Your task to perform on an android device: open wifi settings Image 0: 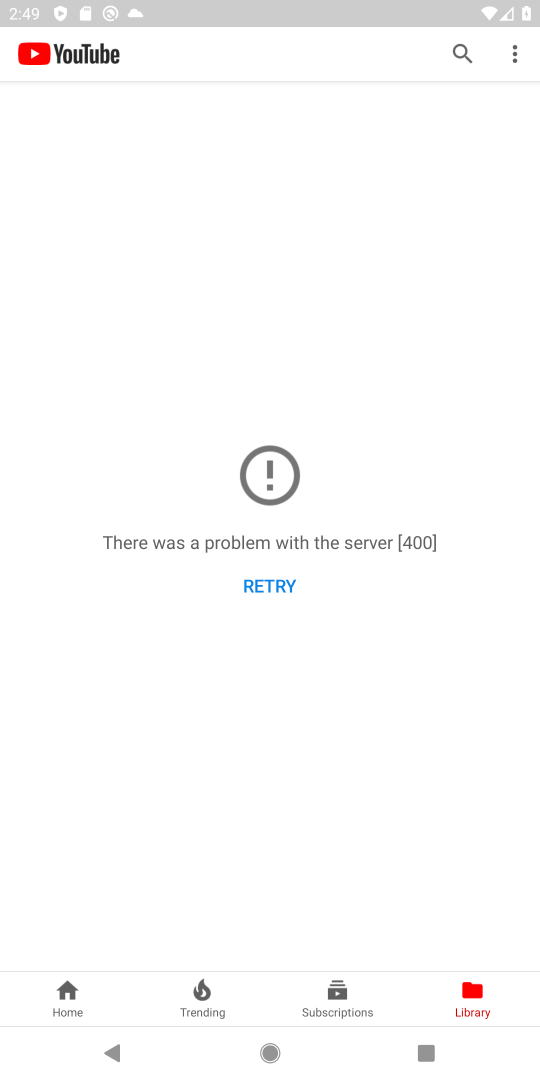
Step 0: press home button
Your task to perform on an android device: open wifi settings Image 1: 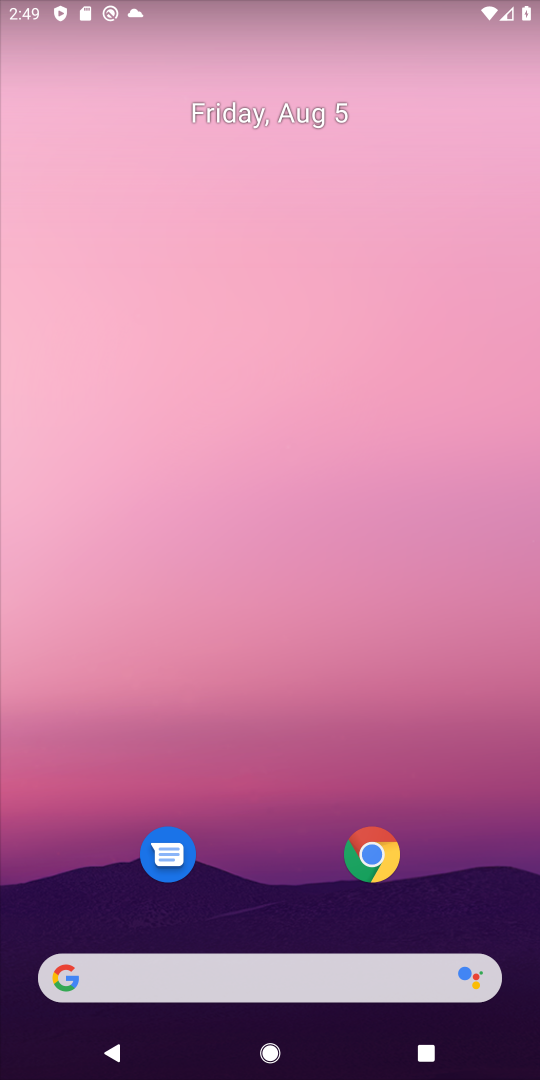
Step 1: drag from (37, 1047) to (358, 308)
Your task to perform on an android device: open wifi settings Image 2: 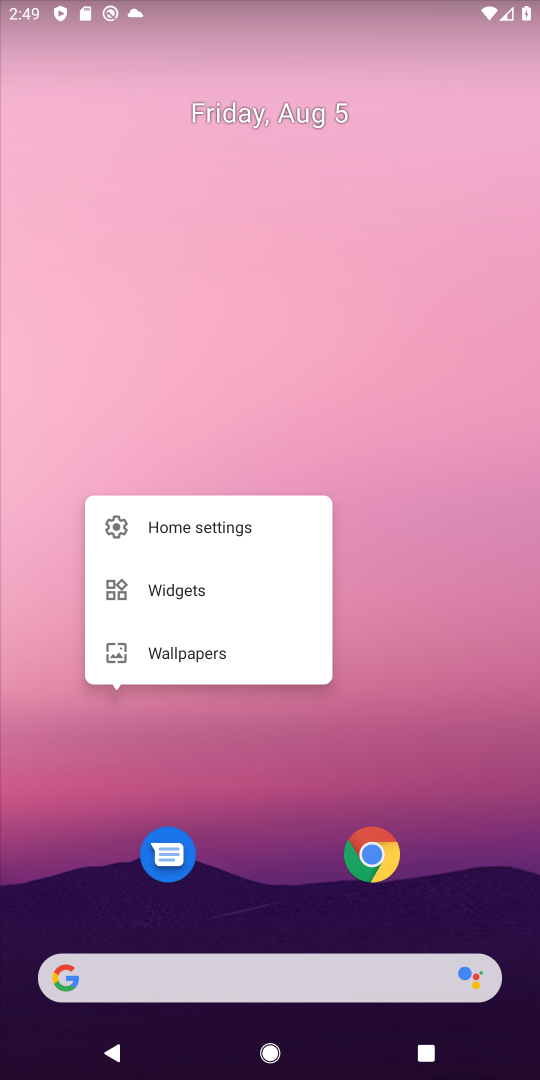
Step 2: click (73, 1031)
Your task to perform on an android device: open wifi settings Image 3: 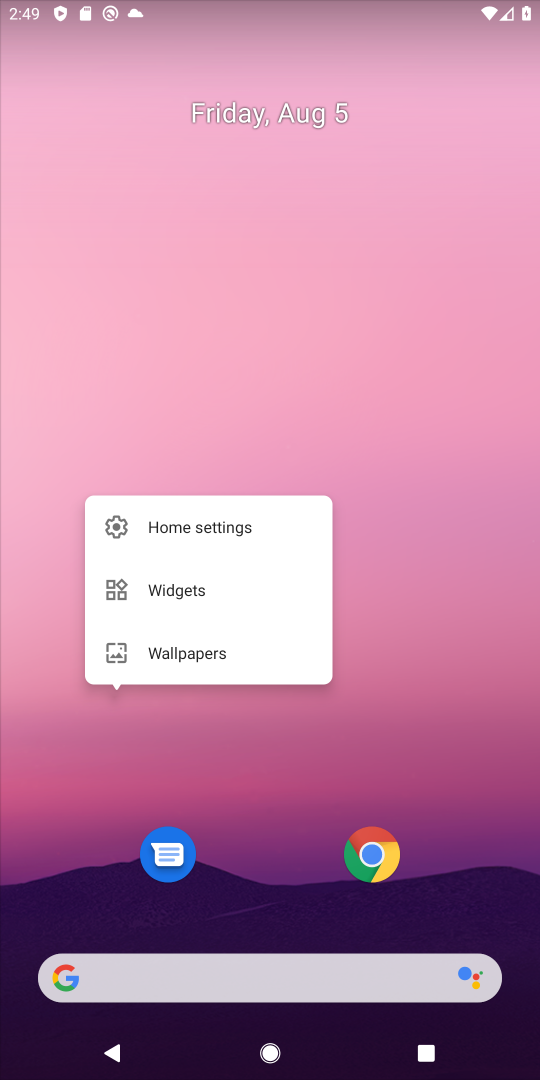
Step 3: drag from (337, 693) to (496, 362)
Your task to perform on an android device: open wifi settings Image 4: 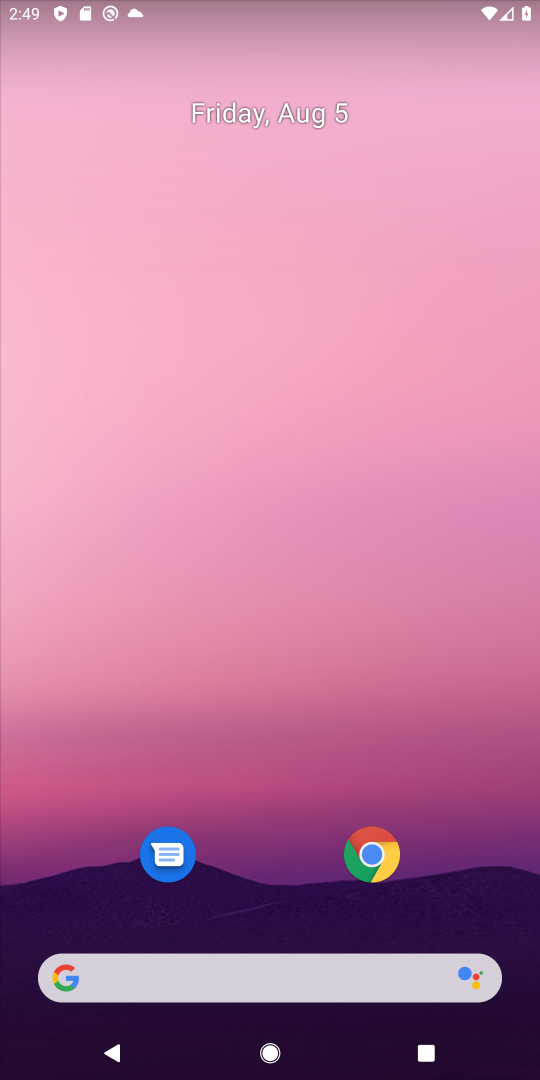
Step 4: drag from (67, 1023) to (315, 430)
Your task to perform on an android device: open wifi settings Image 5: 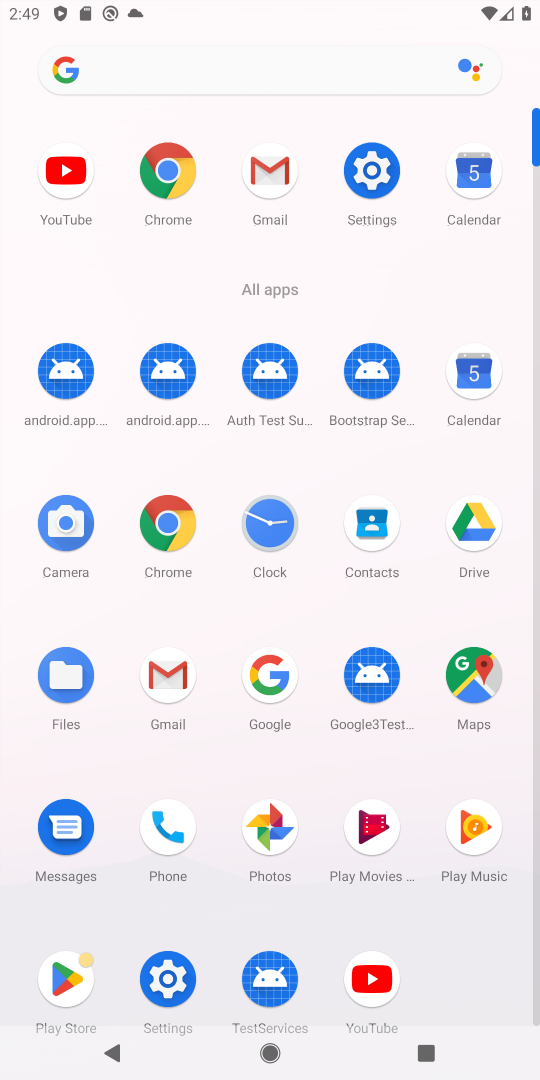
Step 5: click (156, 971)
Your task to perform on an android device: open wifi settings Image 6: 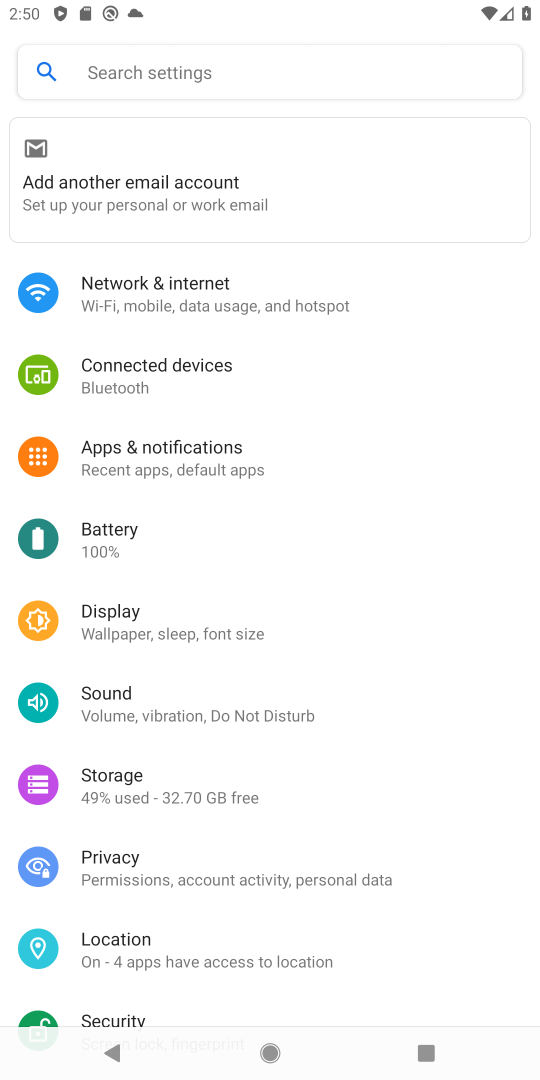
Step 6: click (152, 289)
Your task to perform on an android device: open wifi settings Image 7: 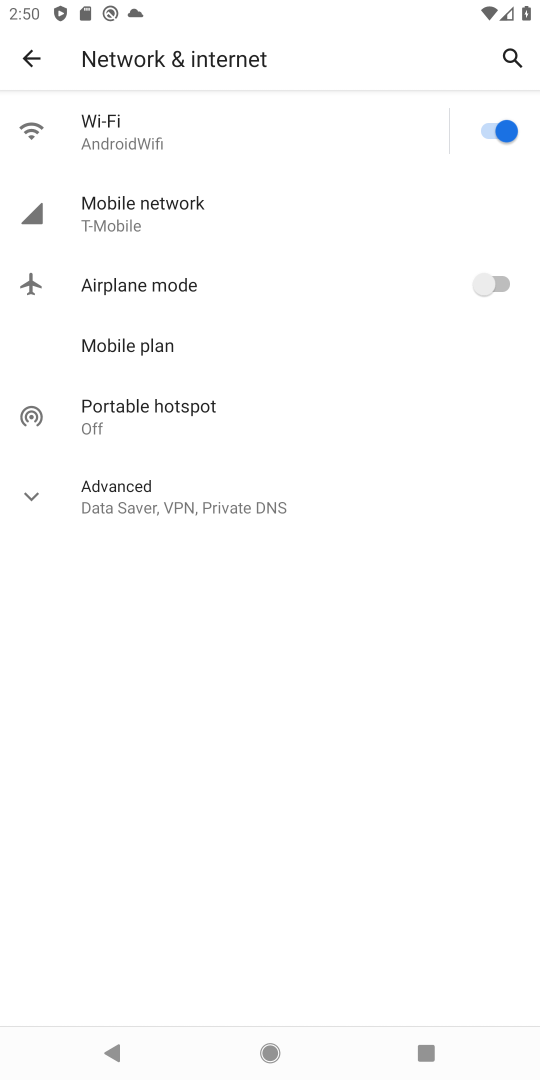
Step 7: task complete